Your task to perform on an android device: Open sound settings Image 0: 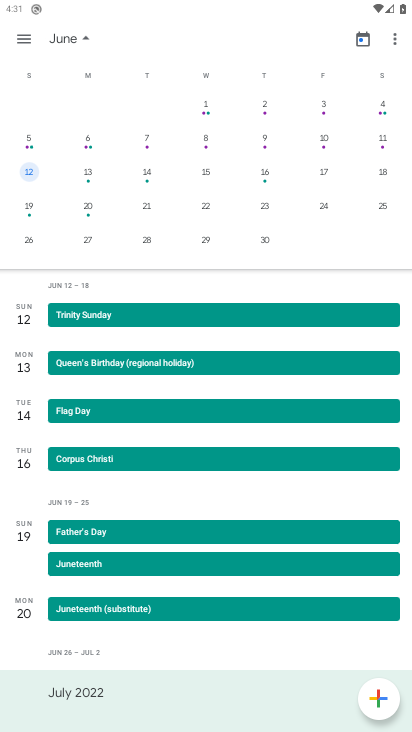
Step 0: press home button
Your task to perform on an android device: Open sound settings Image 1: 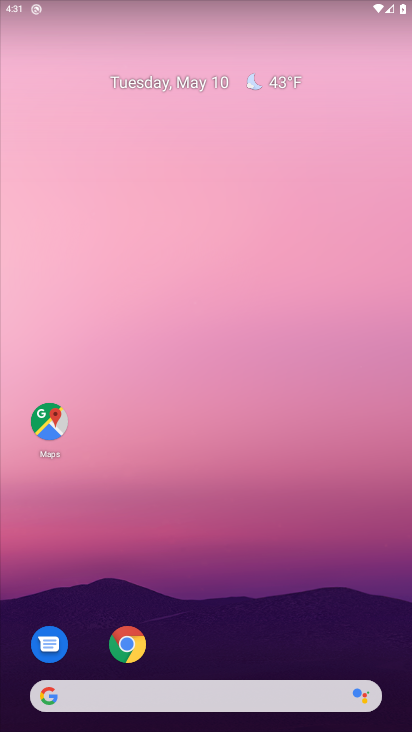
Step 1: drag from (166, 674) to (220, 242)
Your task to perform on an android device: Open sound settings Image 2: 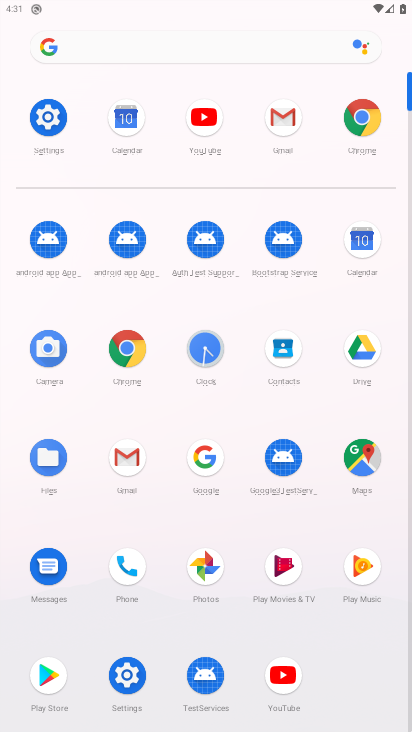
Step 2: click (41, 114)
Your task to perform on an android device: Open sound settings Image 3: 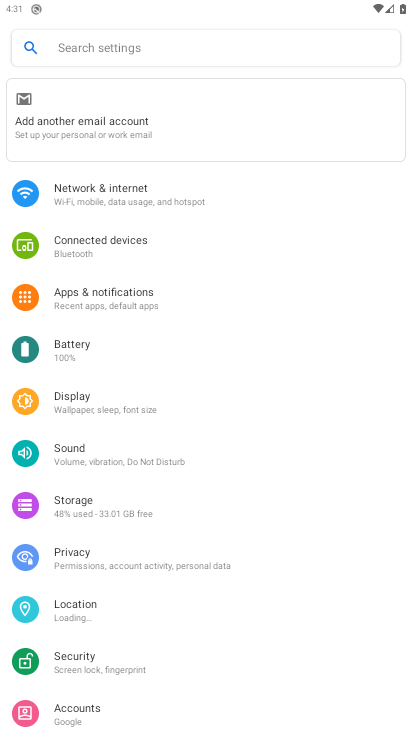
Step 3: click (100, 458)
Your task to perform on an android device: Open sound settings Image 4: 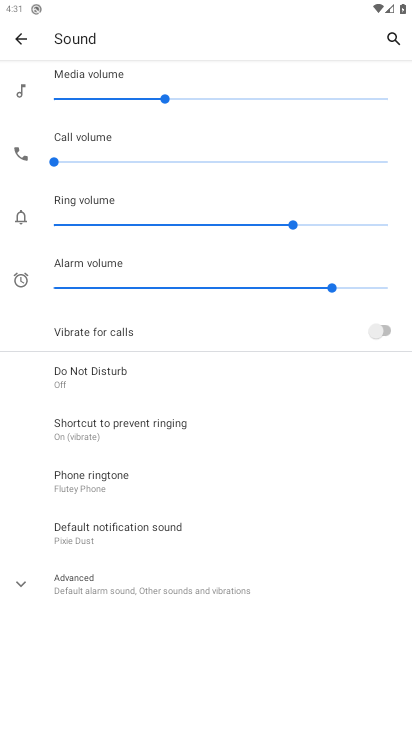
Step 4: click (64, 596)
Your task to perform on an android device: Open sound settings Image 5: 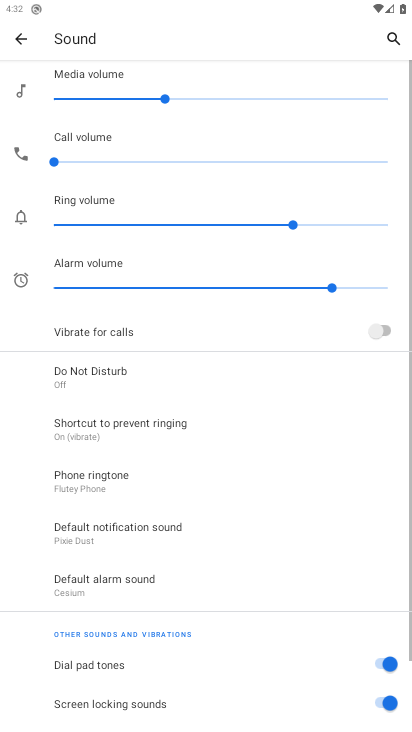
Step 5: task complete